Your task to perform on an android device: turn on translation in the chrome app Image 0: 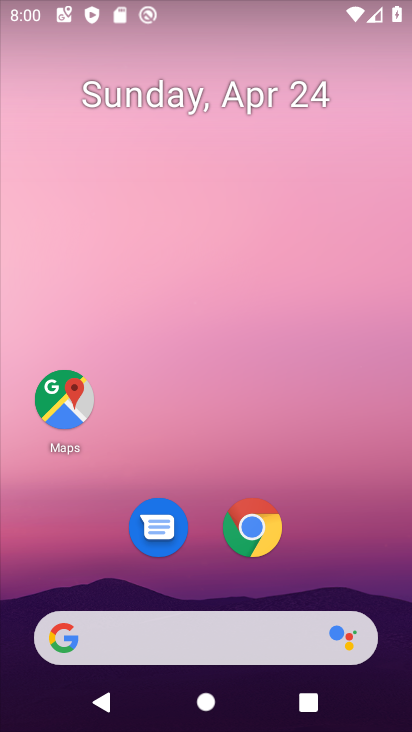
Step 0: drag from (396, 609) to (259, 175)
Your task to perform on an android device: turn on translation in the chrome app Image 1: 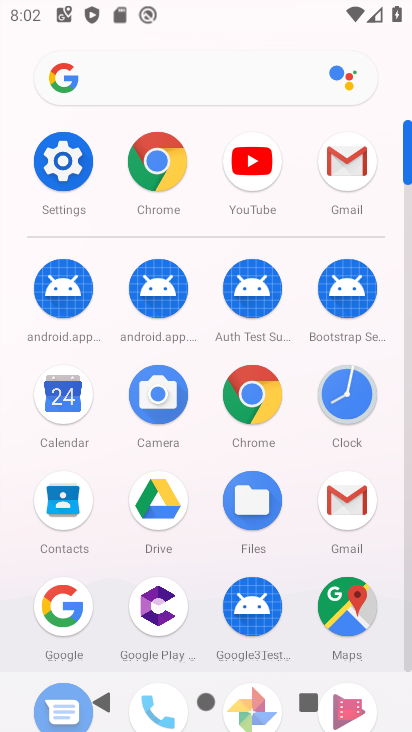
Step 1: click (261, 401)
Your task to perform on an android device: turn on translation in the chrome app Image 2: 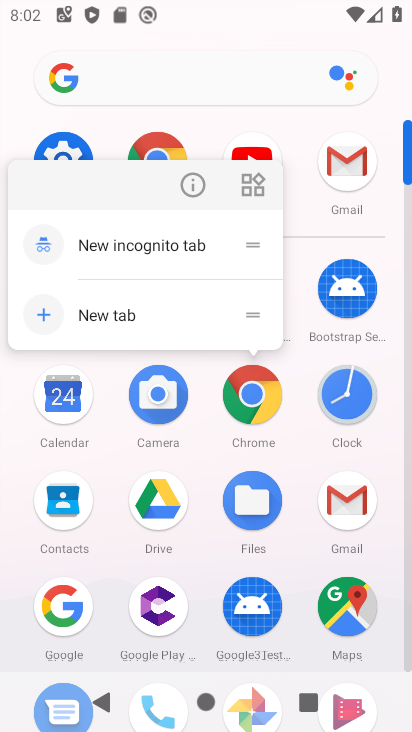
Step 2: click (261, 401)
Your task to perform on an android device: turn on translation in the chrome app Image 3: 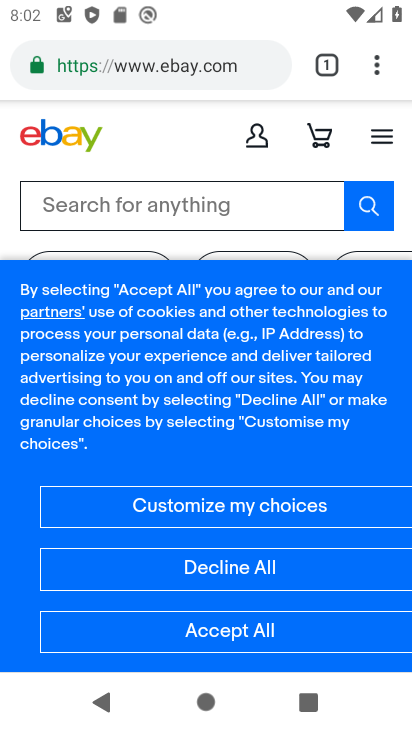
Step 3: click (381, 63)
Your task to perform on an android device: turn on translation in the chrome app Image 4: 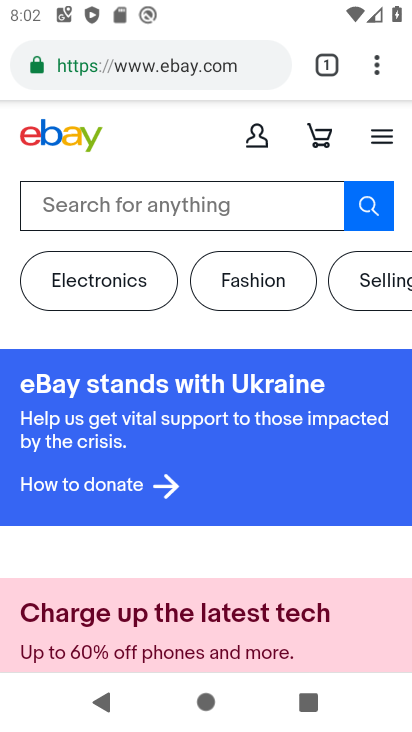
Step 4: click (373, 59)
Your task to perform on an android device: turn on translation in the chrome app Image 5: 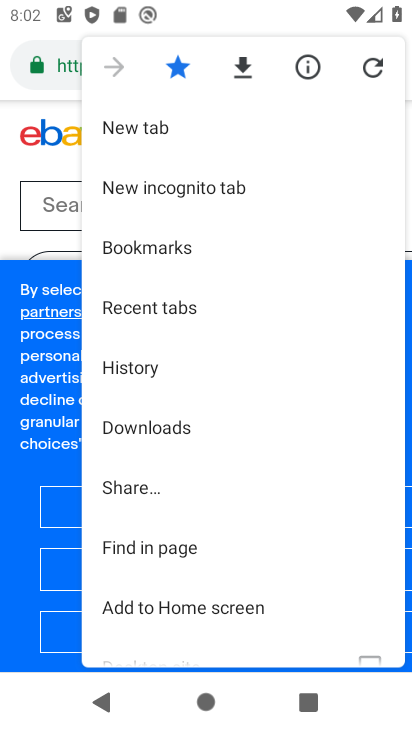
Step 5: drag from (186, 614) to (221, 211)
Your task to perform on an android device: turn on translation in the chrome app Image 6: 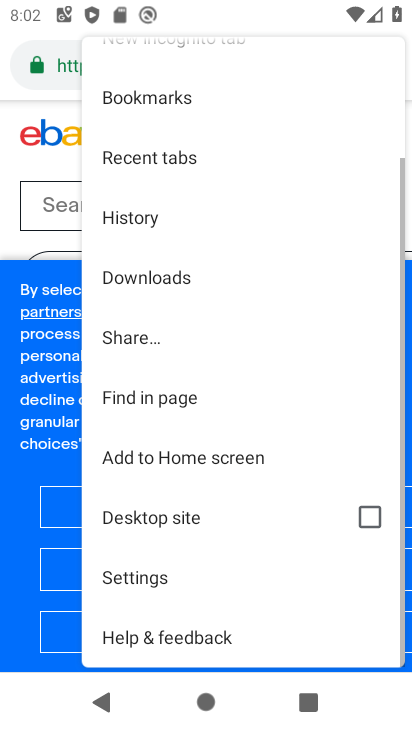
Step 6: click (162, 575)
Your task to perform on an android device: turn on translation in the chrome app Image 7: 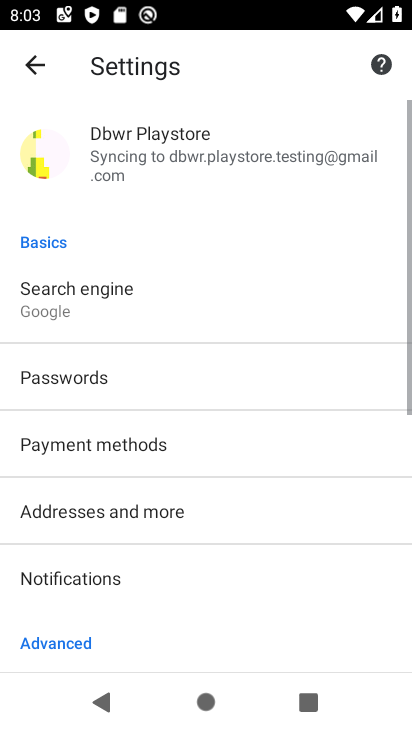
Step 7: drag from (70, 634) to (130, 149)
Your task to perform on an android device: turn on translation in the chrome app Image 8: 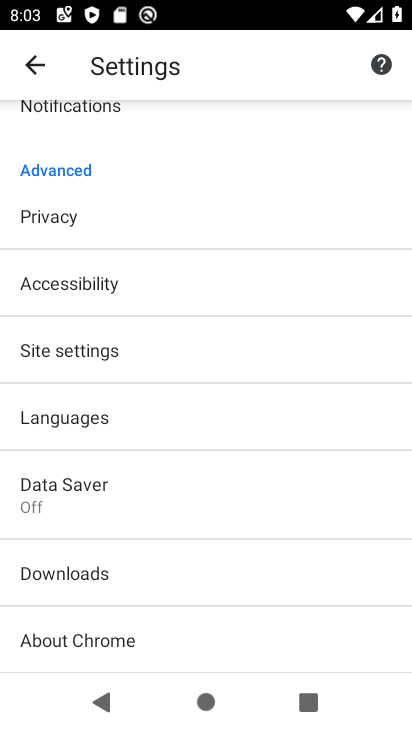
Step 8: click (123, 411)
Your task to perform on an android device: turn on translation in the chrome app Image 9: 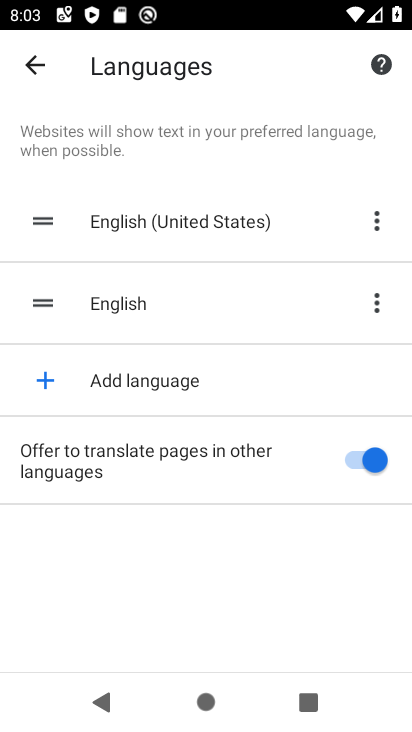
Step 9: task complete